Your task to perform on an android device: Open settings on Google Maps Image 0: 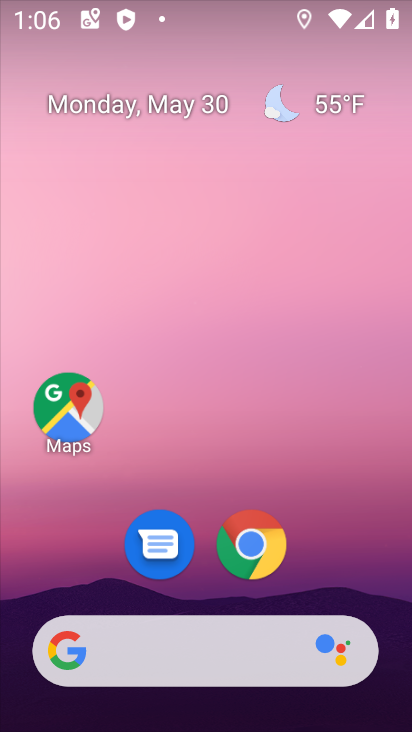
Step 0: click (63, 425)
Your task to perform on an android device: Open settings on Google Maps Image 1: 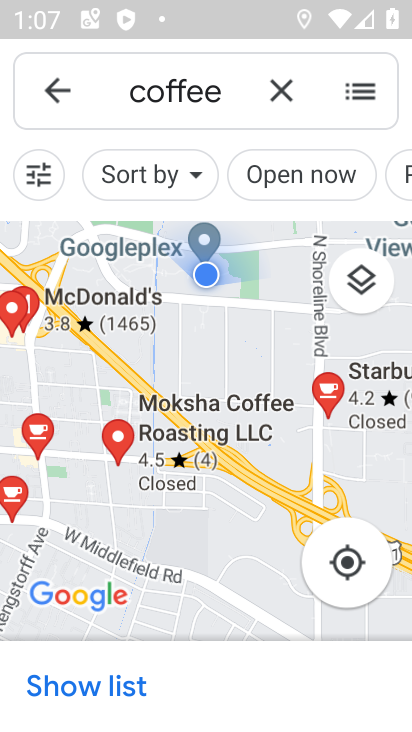
Step 1: click (62, 90)
Your task to perform on an android device: Open settings on Google Maps Image 2: 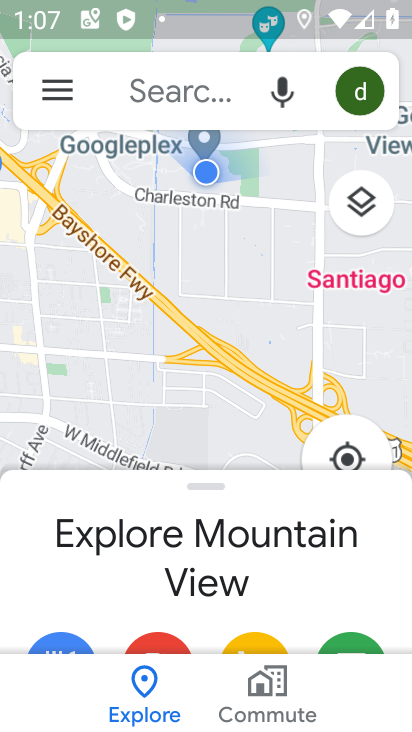
Step 2: click (62, 90)
Your task to perform on an android device: Open settings on Google Maps Image 3: 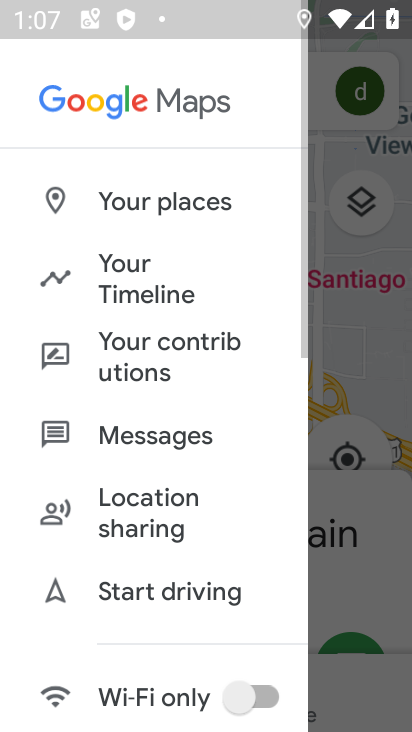
Step 3: drag from (173, 641) to (151, 185)
Your task to perform on an android device: Open settings on Google Maps Image 4: 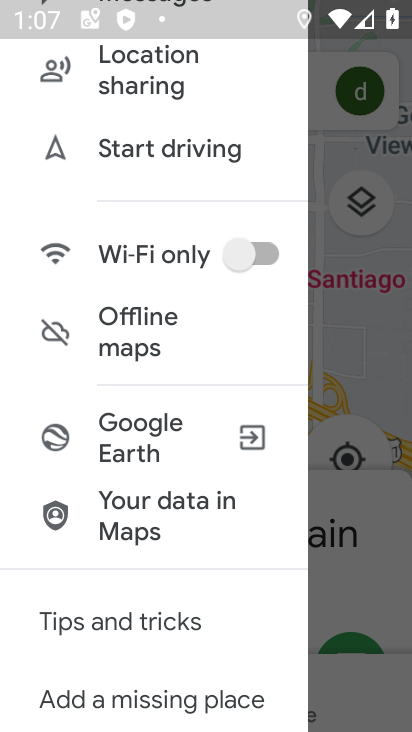
Step 4: drag from (110, 663) to (133, 231)
Your task to perform on an android device: Open settings on Google Maps Image 5: 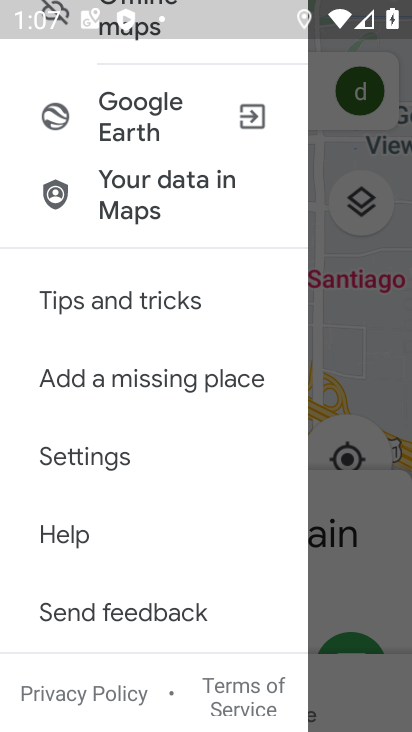
Step 5: click (99, 464)
Your task to perform on an android device: Open settings on Google Maps Image 6: 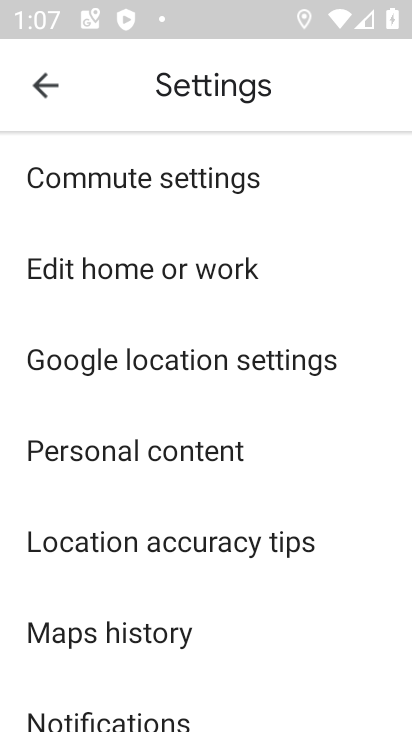
Step 6: task complete